Your task to perform on an android device: turn on sleep mode Image 0: 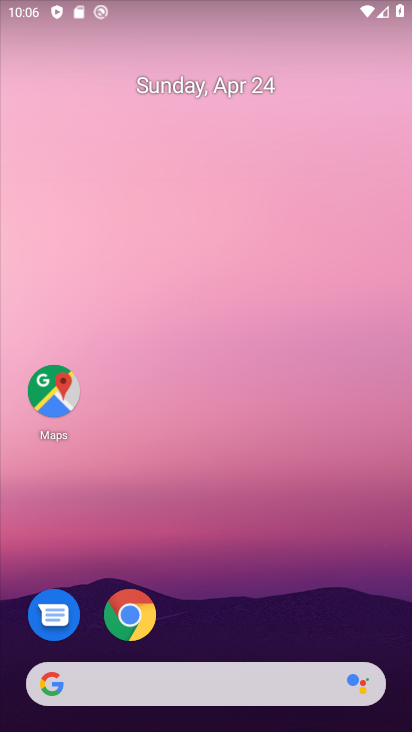
Step 0: drag from (214, 322) to (212, 103)
Your task to perform on an android device: turn on sleep mode Image 1: 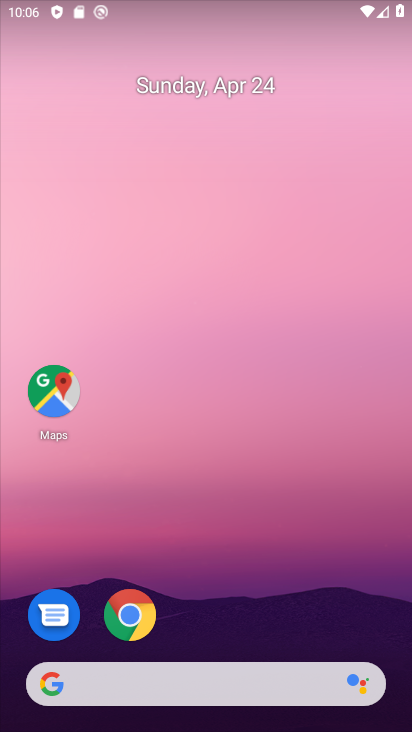
Step 1: drag from (218, 641) to (212, 53)
Your task to perform on an android device: turn on sleep mode Image 2: 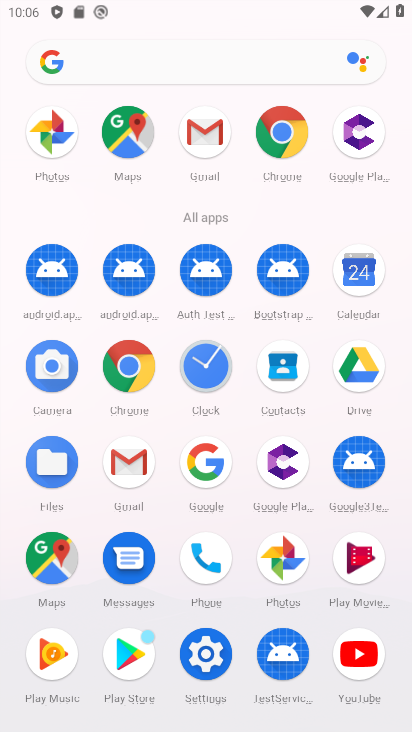
Step 2: click (203, 645)
Your task to perform on an android device: turn on sleep mode Image 3: 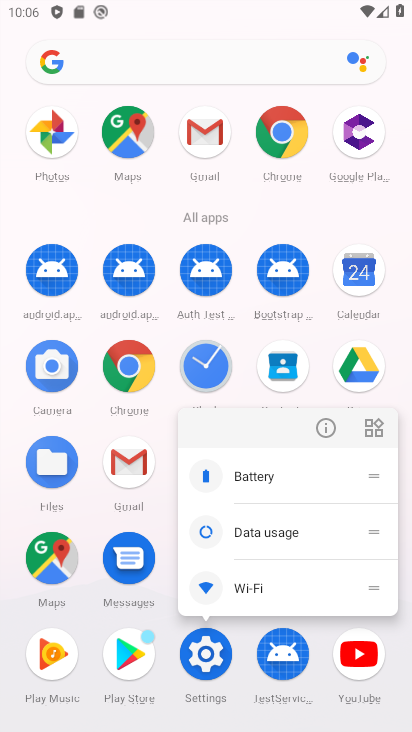
Step 3: click (202, 644)
Your task to perform on an android device: turn on sleep mode Image 4: 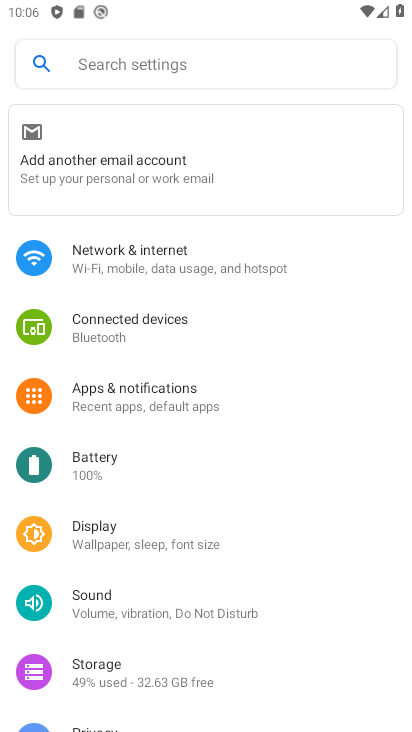
Step 4: drag from (165, 649) to (148, 256)
Your task to perform on an android device: turn on sleep mode Image 5: 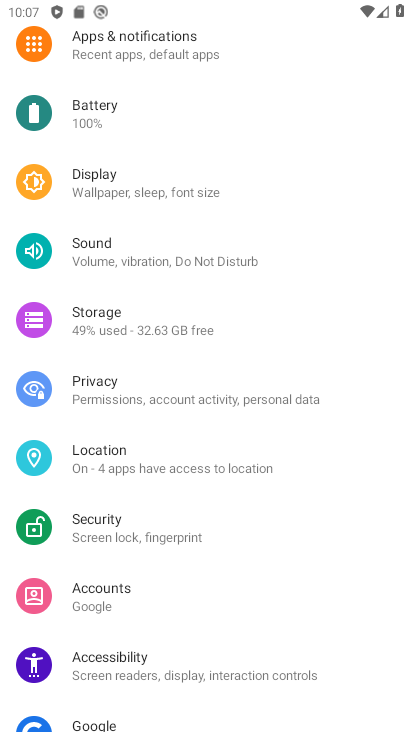
Step 5: click (99, 176)
Your task to perform on an android device: turn on sleep mode Image 6: 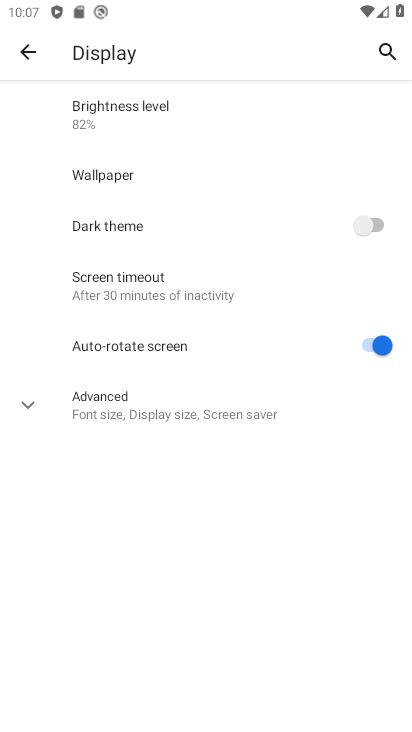
Step 6: click (24, 398)
Your task to perform on an android device: turn on sleep mode Image 7: 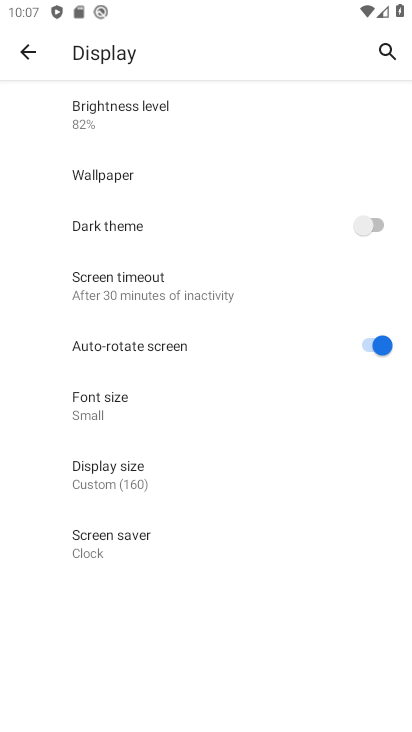
Step 7: task complete